Your task to perform on an android device: Search for vegetarian restaurants on Maps Image 0: 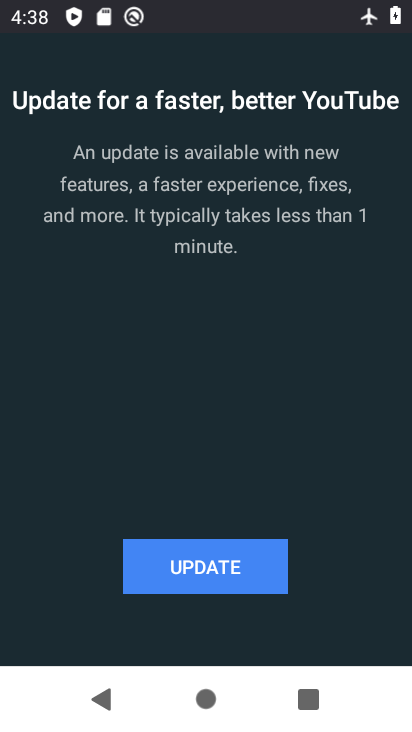
Step 0: press home button
Your task to perform on an android device: Search for vegetarian restaurants on Maps Image 1: 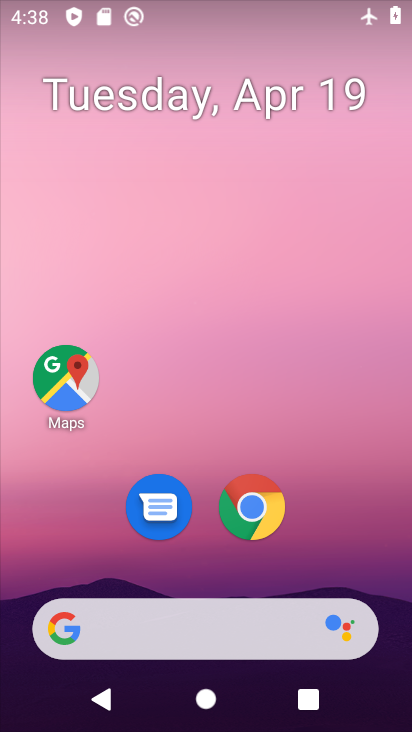
Step 1: drag from (319, 565) to (315, 194)
Your task to perform on an android device: Search for vegetarian restaurants on Maps Image 2: 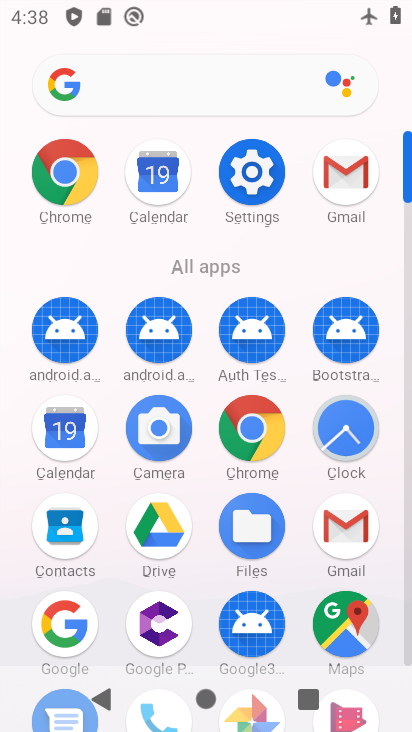
Step 2: click (335, 620)
Your task to perform on an android device: Search for vegetarian restaurants on Maps Image 3: 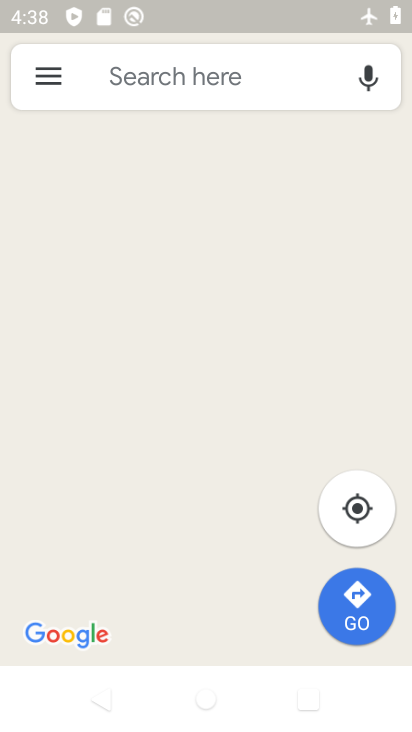
Step 3: click (176, 77)
Your task to perform on an android device: Search for vegetarian restaurants on Maps Image 4: 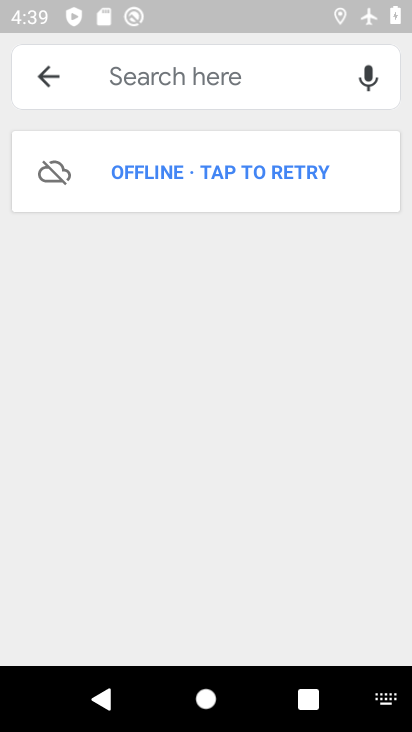
Step 4: task complete